Your task to perform on an android device: turn smart compose on in the gmail app Image 0: 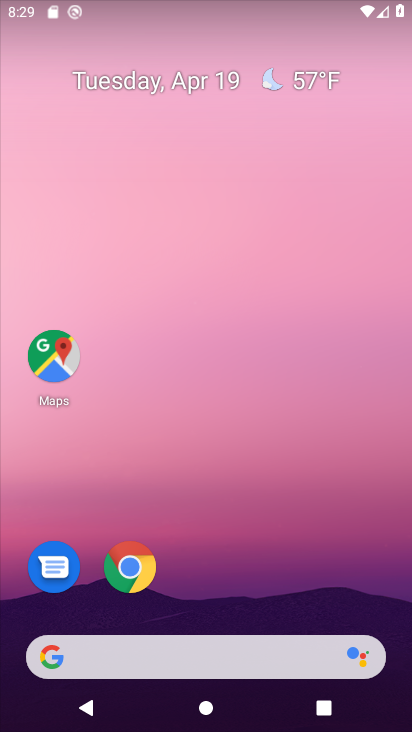
Step 0: drag from (254, 714) to (287, 116)
Your task to perform on an android device: turn smart compose on in the gmail app Image 1: 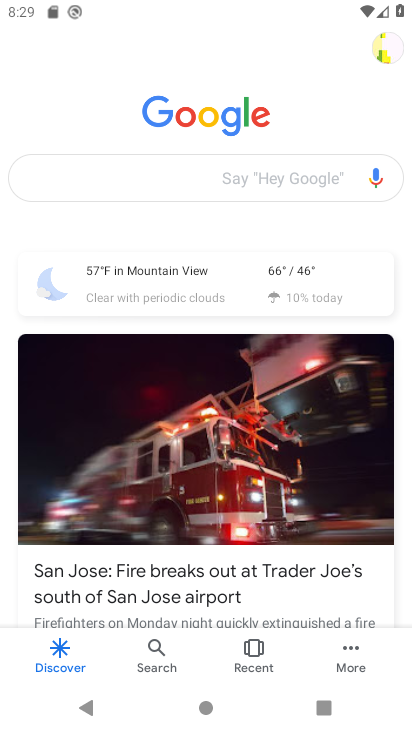
Step 1: press home button
Your task to perform on an android device: turn smart compose on in the gmail app Image 2: 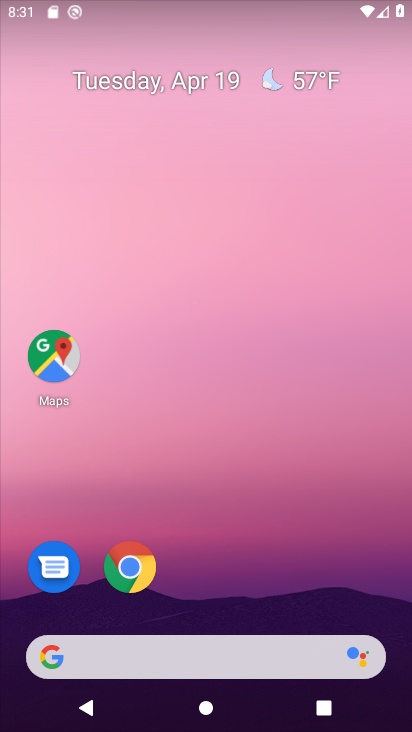
Step 2: drag from (252, 678) to (375, 19)
Your task to perform on an android device: turn smart compose on in the gmail app Image 3: 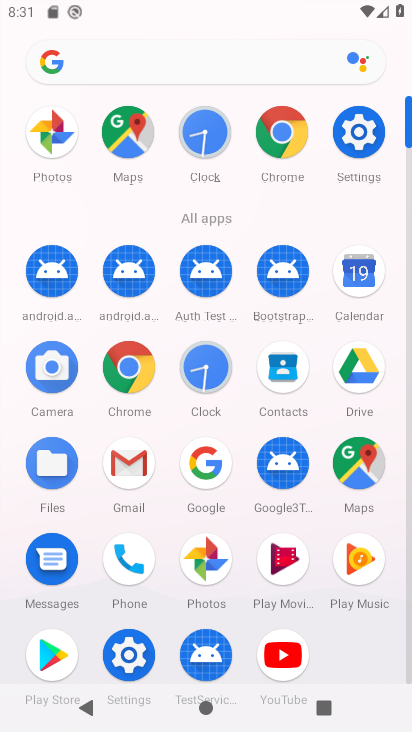
Step 3: click (125, 463)
Your task to perform on an android device: turn smart compose on in the gmail app Image 4: 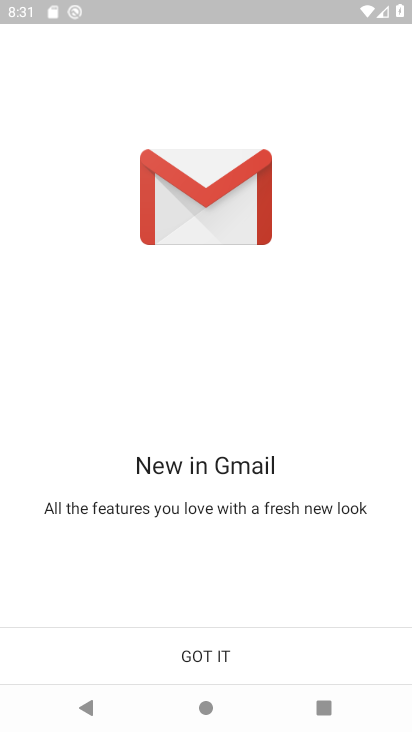
Step 4: click (241, 650)
Your task to perform on an android device: turn smart compose on in the gmail app Image 5: 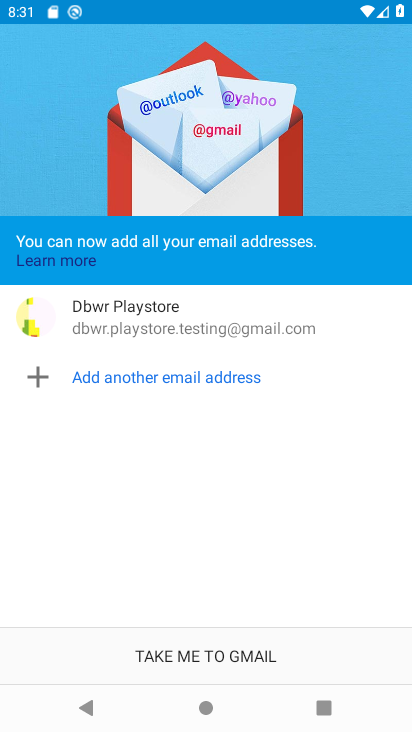
Step 5: click (201, 663)
Your task to perform on an android device: turn smart compose on in the gmail app Image 6: 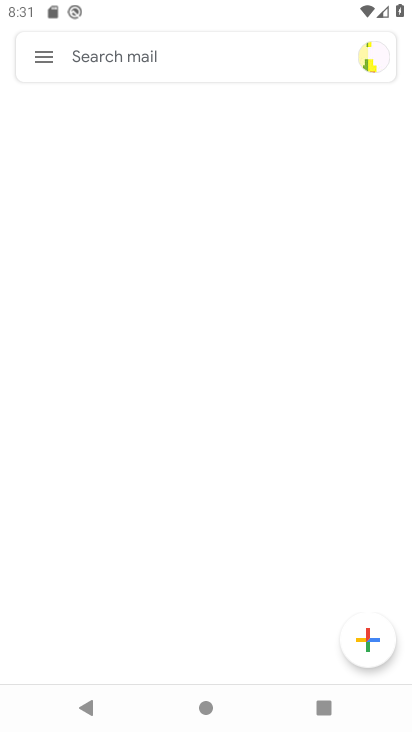
Step 6: click (39, 57)
Your task to perform on an android device: turn smart compose on in the gmail app Image 7: 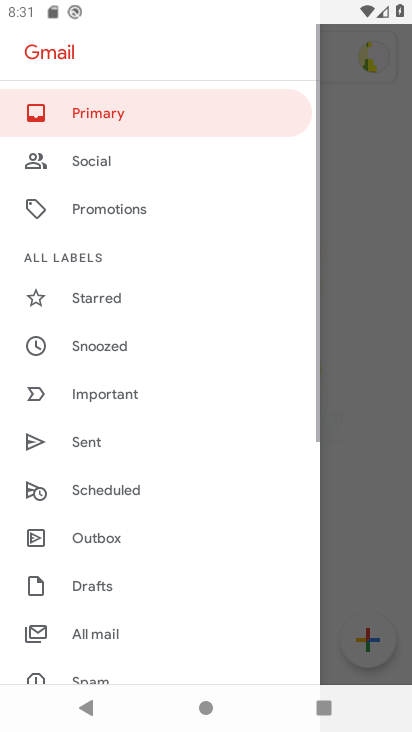
Step 7: drag from (165, 612) to (175, 114)
Your task to perform on an android device: turn smart compose on in the gmail app Image 8: 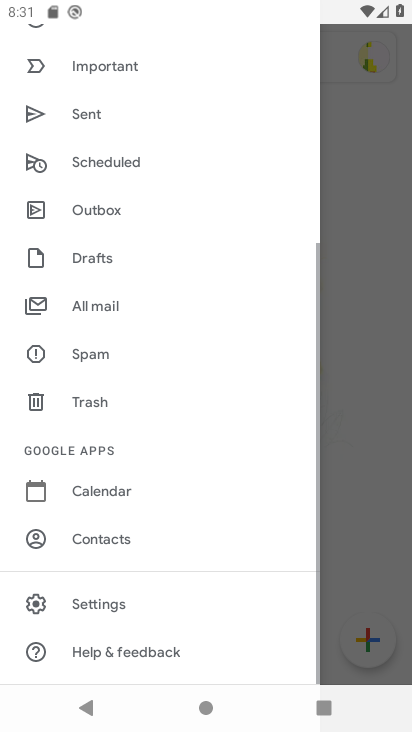
Step 8: click (131, 607)
Your task to perform on an android device: turn smart compose on in the gmail app Image 9: 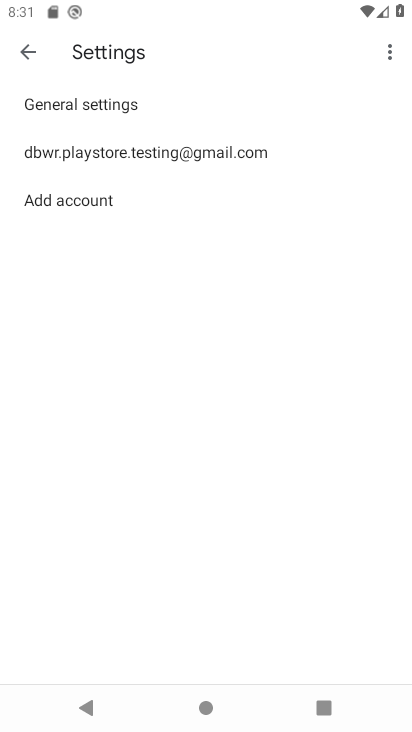
Step 9: click (166, 152)
Your task to perform on an android device: turn smart compose on in the gmail app Image 10: 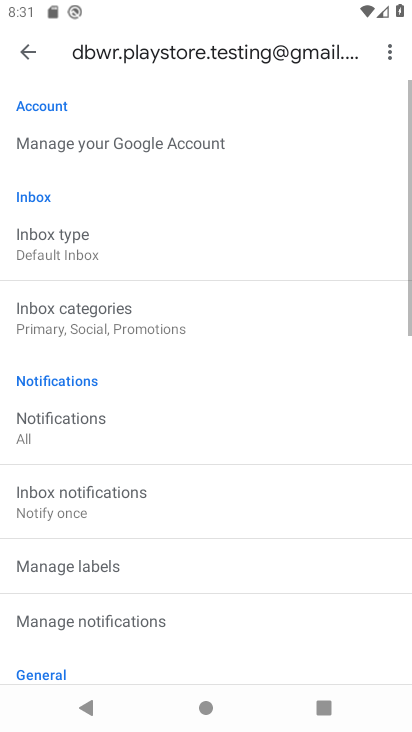
Step 10: task complete